Your task to perform on an android device: Open Google Chrome and click the shortcut for Amazon.com Image 0: 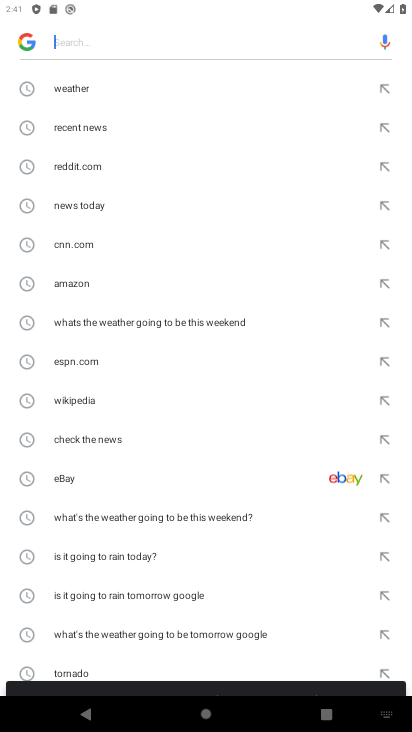
Step 0: press home button
Your task to perform on an android device: Open Google Chrome and click the shortcut for Amazon.com Image 1: 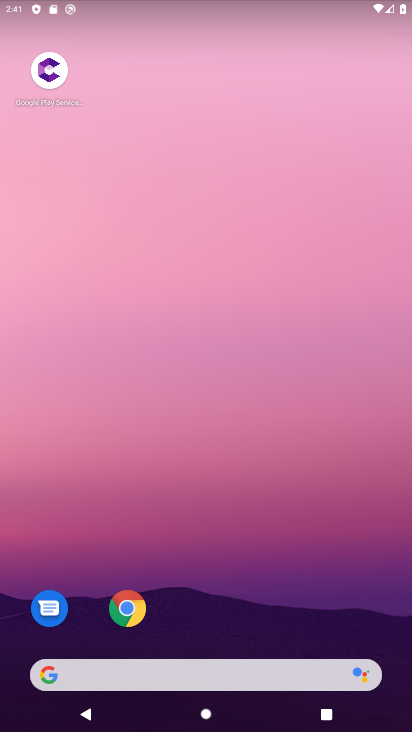
Step 1: click (136, 599)
Your task to perform on an android device: Open Google Chrome and click the shortcut for Amazon.com Image 2: 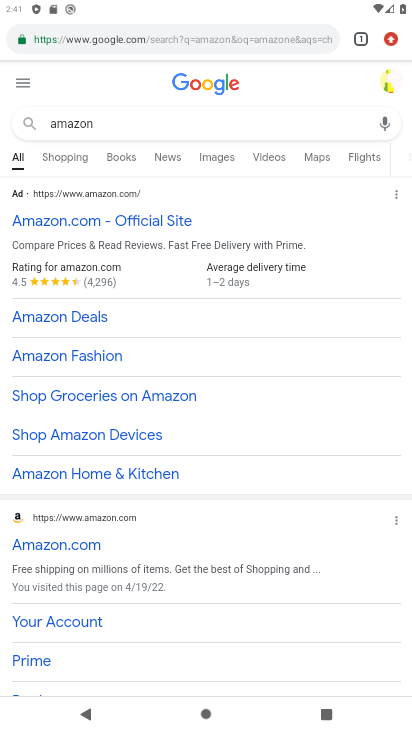
Step 2: drag from (399, 37) to (254, 114)
Your task to perform on an android device: Open Google Chrome and click the shortcut for Amazon.com Image 3: 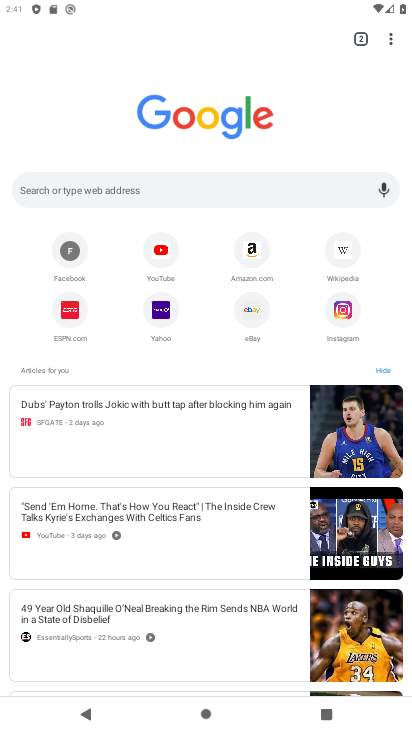
Step 3: click (254, 247)
Your task to perform on an android device: Open Google Chrome and click the shortcut for Amazon.com Image 4: 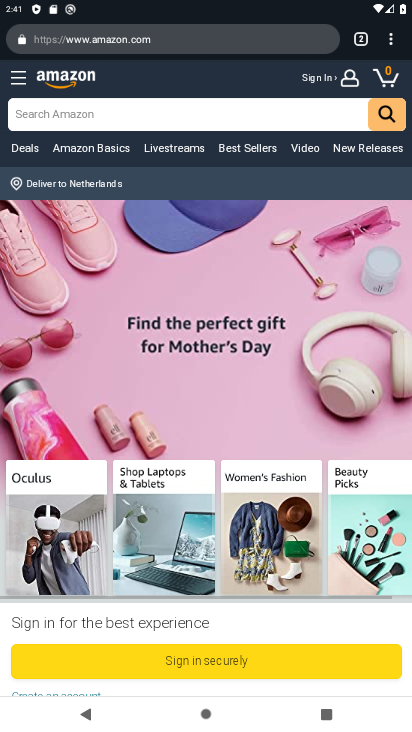
Step 4: task complete